Your task to perform on an android device: turn off location Image 0: 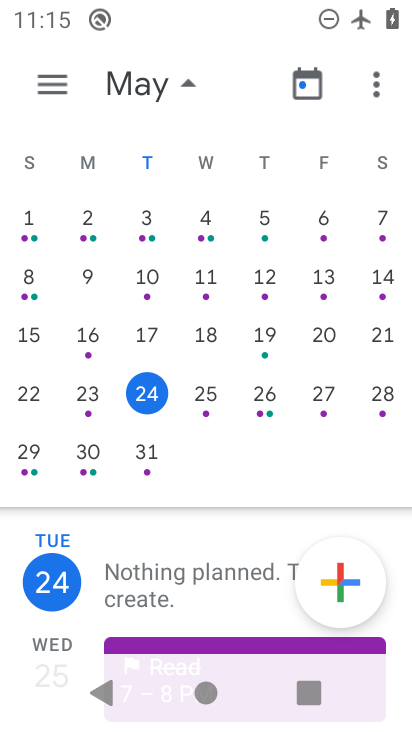
Step 0: press home button
Your task to perform on an android device: turn off location Image 1: 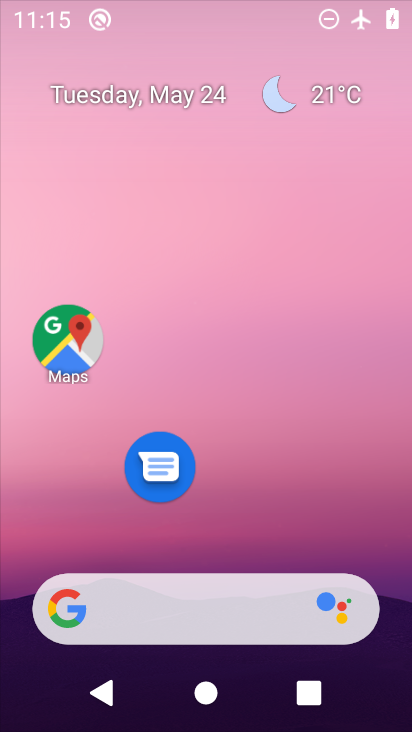
Step 1: drag from (207, 560) to (389, 228)
Your task to perform on an android device: turn off location Image 2: 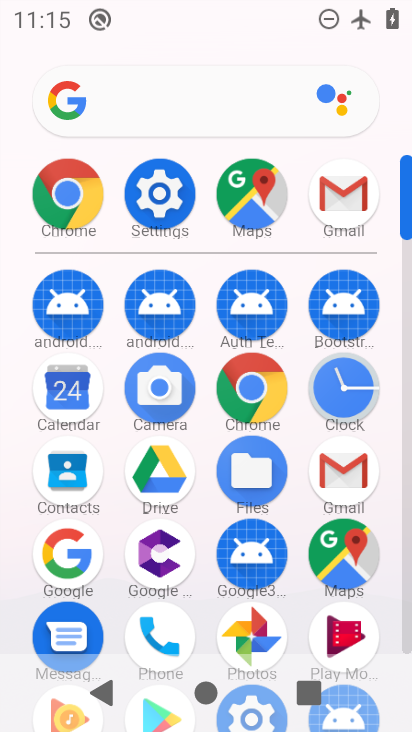
Step 2: click (169, 200)
Your task to perform on an android device: turn off location Image 3: 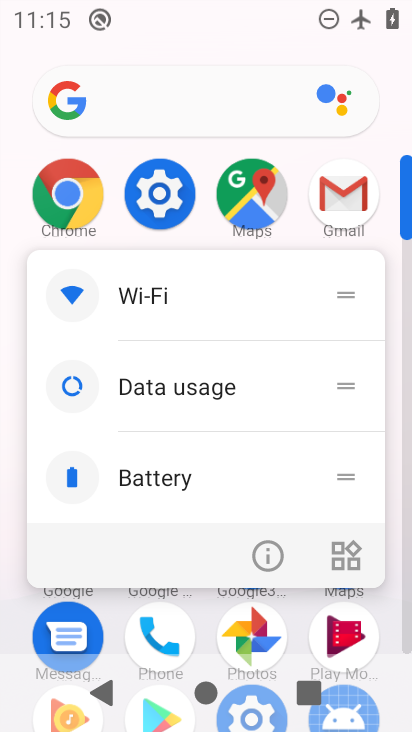
Step 3: click (274, 554)
Your task to perform on an android device: turn off location Image 4: 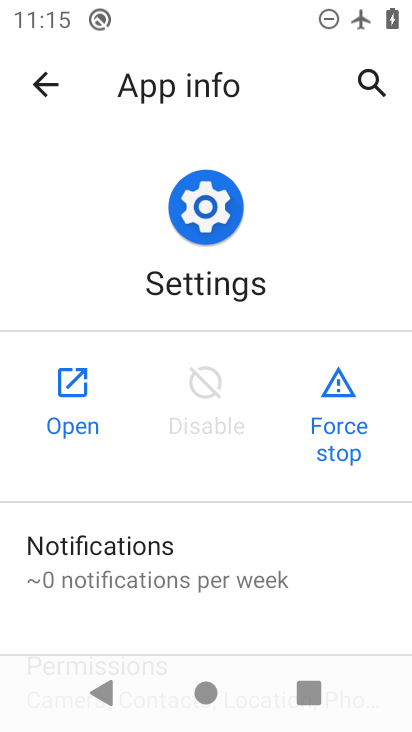
Step 4: click (76, 400)
Your task to perform on an android device: turn off location Image 5: 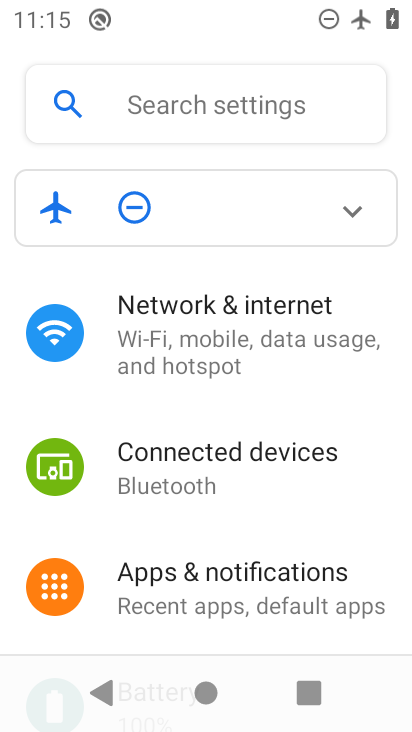
Step 5: drag from (224, 587) to (241, 330)
Your task to perform on an android device: turn off location Image 6: 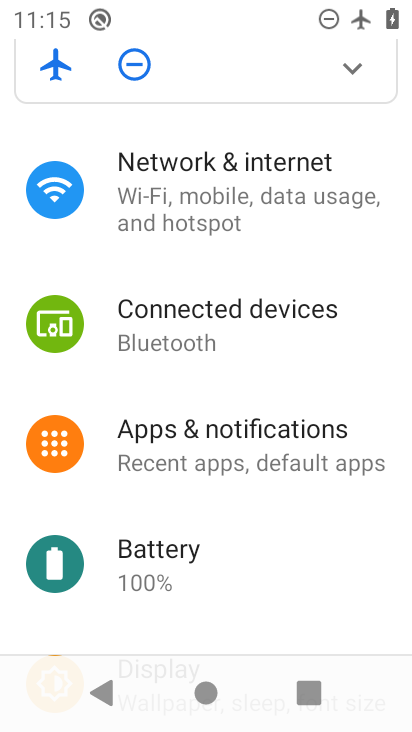
Step 6: drag from (196, 564) to (262, 194)
Your task to perform on an android device: turn off location Image 7: 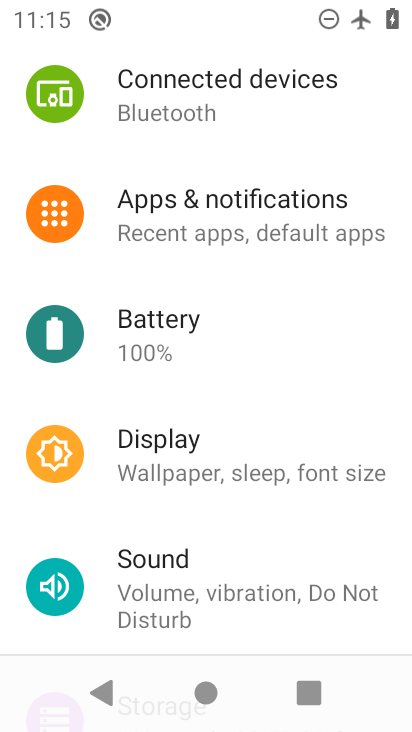
Step 7: drag from (198, 548) to (275, 250)
Your task to perform on an android device: turn off location Image 8: 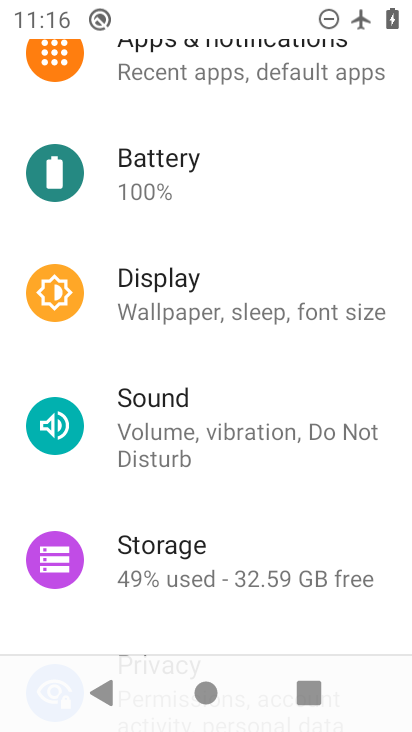
Step 8: drag from (228, 501) to (295, 238)
Your task to perform on an android device: turn off location Image 9: 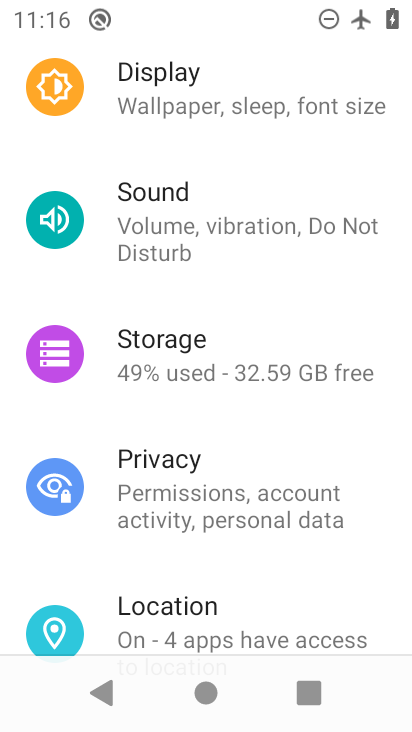
Step 9: click (193, 561)
Your task to perform on an android device: turn off location Image 10: 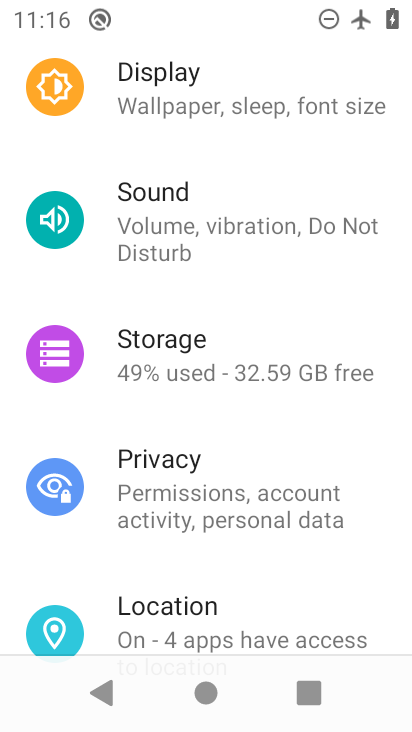
Step 10: click (193, 561)
Your task to perform on an android device: turn off location Image 11: 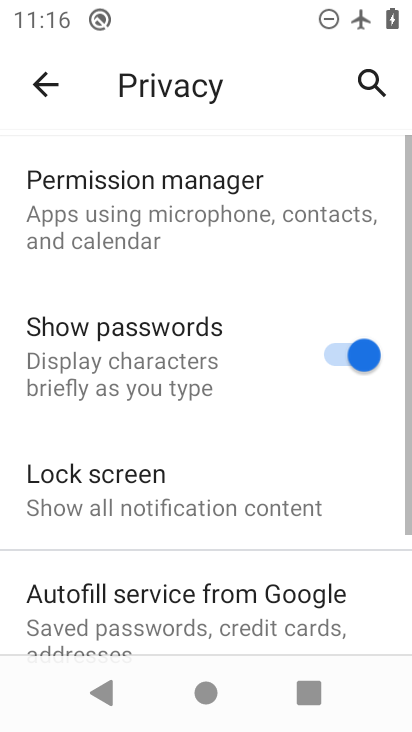
Step 11: click (35, 95)
Your task to perform on an android device: turn off location Image 12: 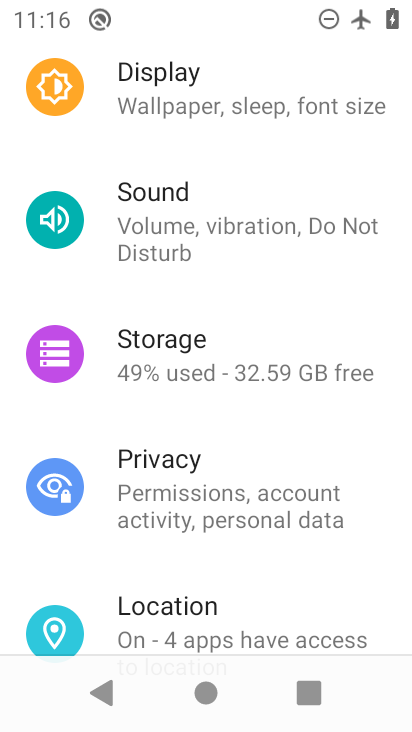
Step 12: click (211, 595)
Your task to perform on an android device: turn off location Image 13: 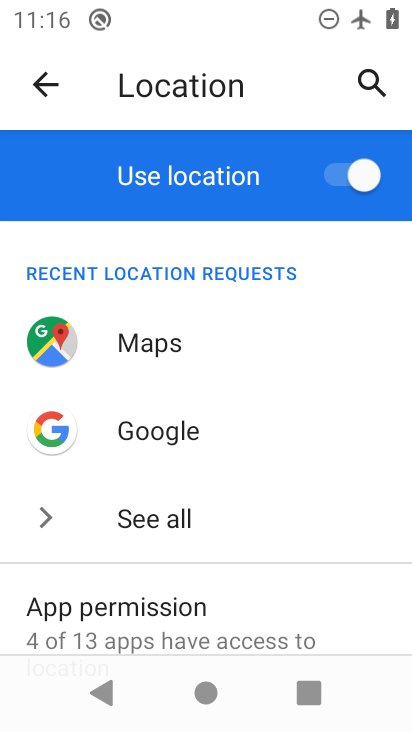
Step 13: drag from (222, 563) to (314, 198)
Your task to perform on an android device: turn off location Image 14: 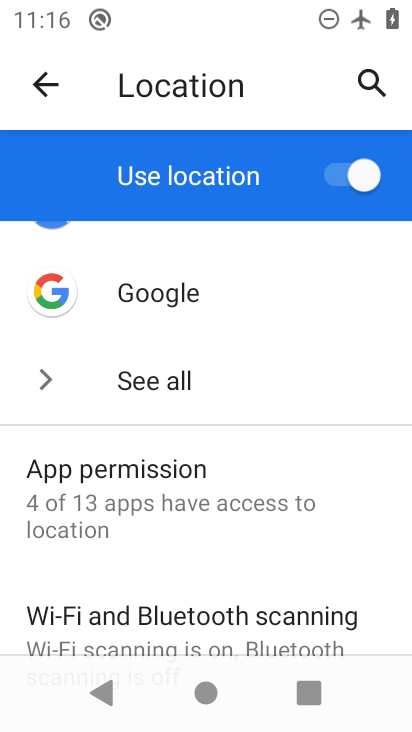
Step 14: drag from (240, 589) to (335, 200)
Your task to perform on an android device: turn off location Image 15: 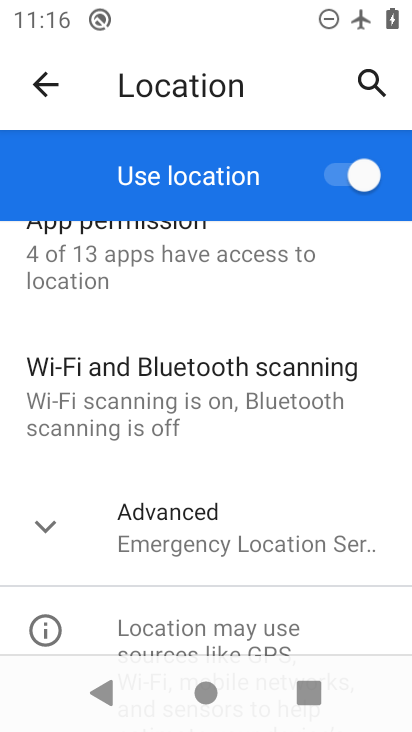
Step 15: click (355, 155)
Your task to perform on an android device: turn off location Image 16: 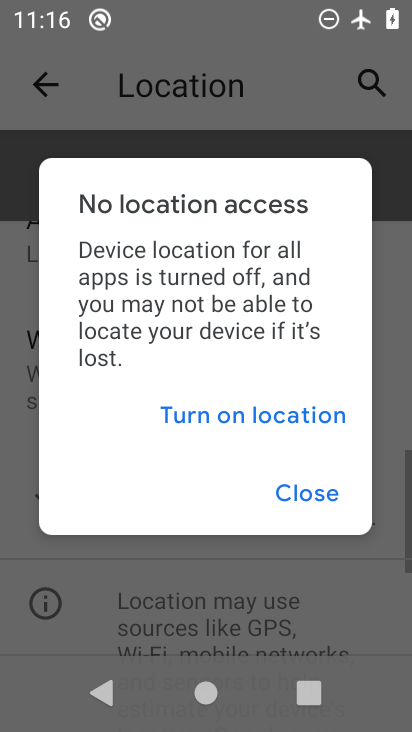
Step 16: task complete